Your task to perform on an android device: Open the calendar app, open the side menu, and click the "Day" option Image 0: 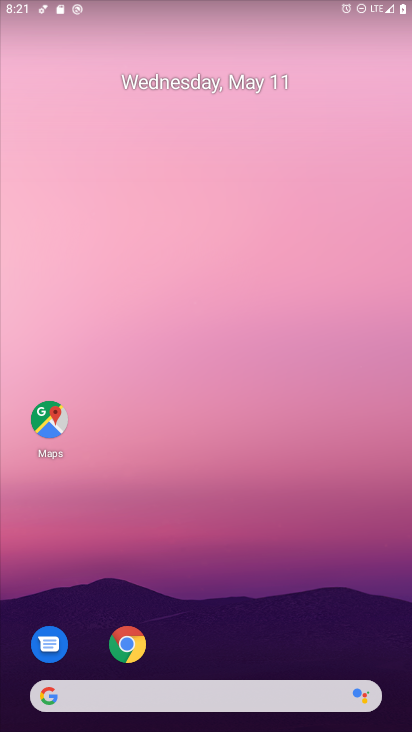
Step 0: drag from (246, 589) to (159, 49)
Your task to perform on an android device: Open the calendar app, open the side menu, and click the "Day" option Image 1: 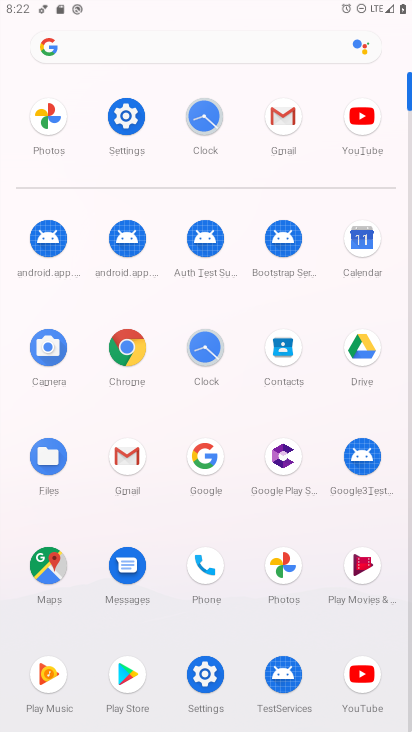
Step 1: click (355, 229)
Your task to perform on an android device: Open the calendar app, open the side menu, and click the "Day" option Image 2: 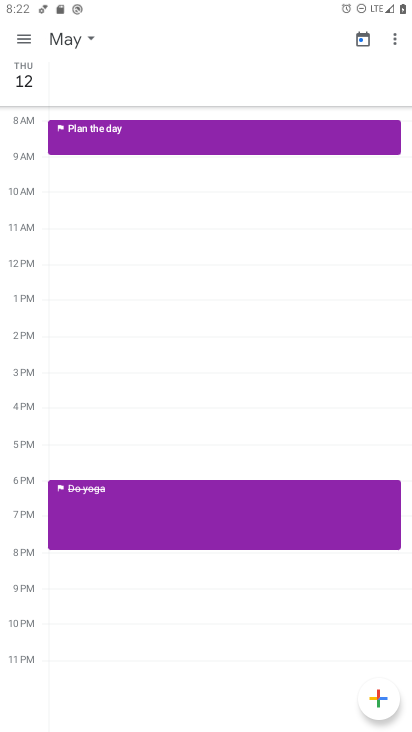
Step 2: click (26, 33)
Your task to perform on an android device: Open the calendar app, open the side menu, and click the "Day" option Image 3: 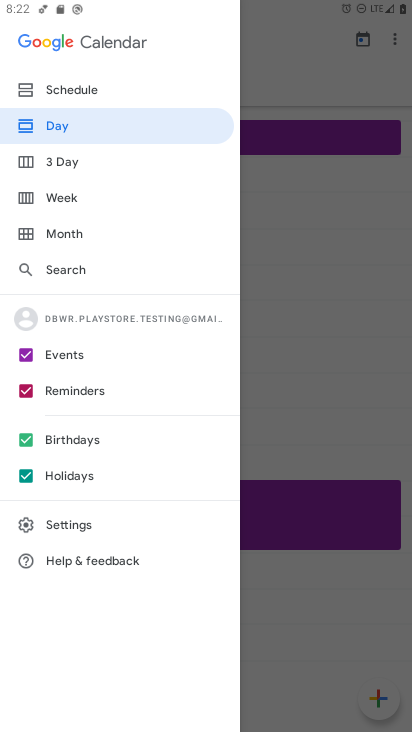
Step 3: click (60, 125)
Your task to perform on an android device: Open the calendar app, open the side menu, and click the "Day" option Image 4: 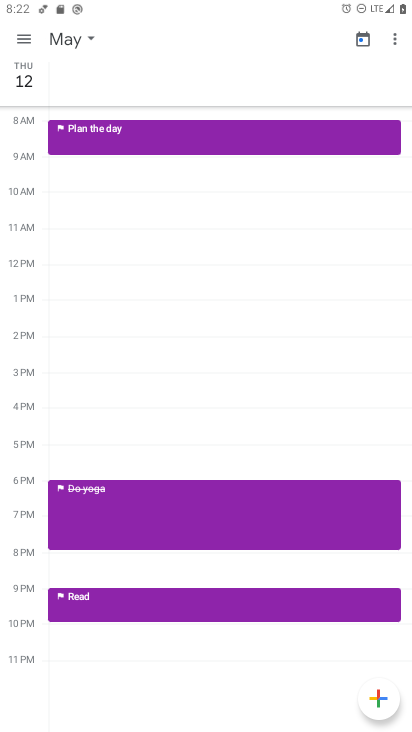
Step 4: task complete